Your task to perform on an android device: Open calendar and show me the fourth week of next month Image 0: 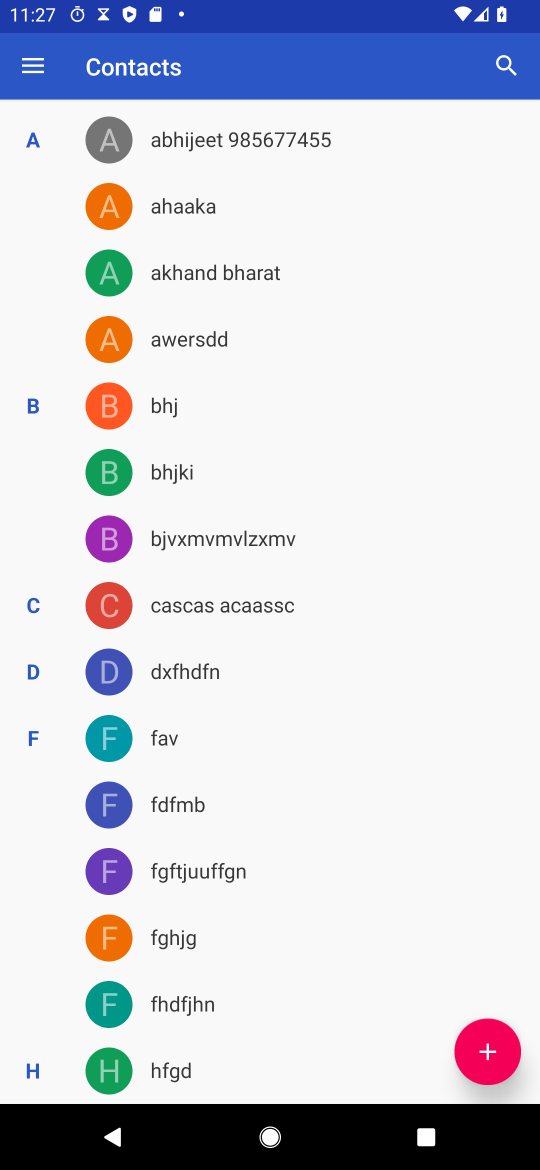
Step 0: press home button
Your task to perform on an android device: Open calendar and show me the fourth week of next month Image 1: 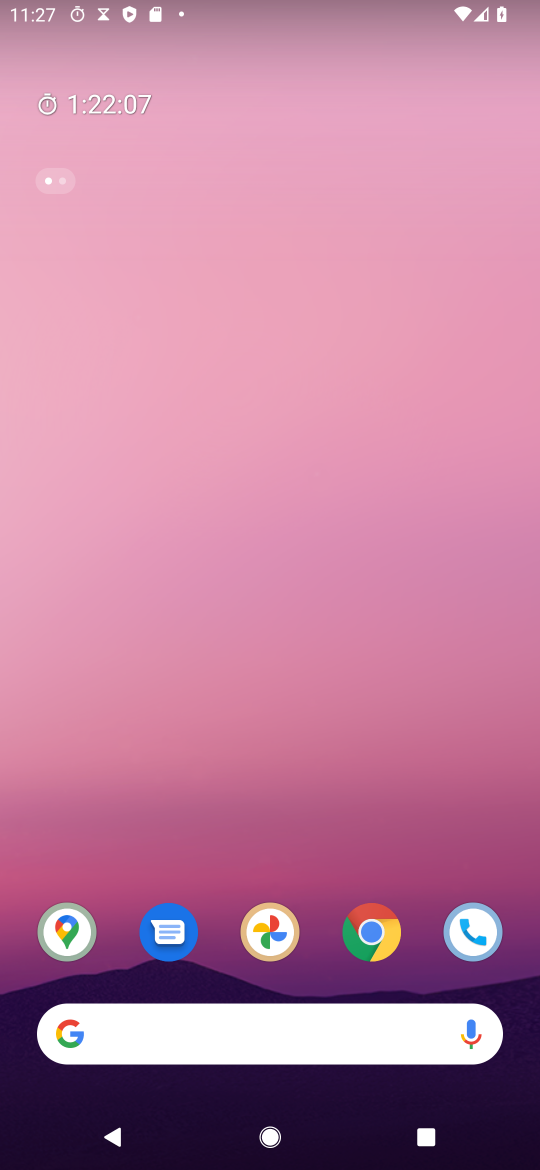
Step 1: drag from (327, 846) to (288, 79)
Your task to perform on an android device: Open calendar and show me the fourth week of next month Image 2: 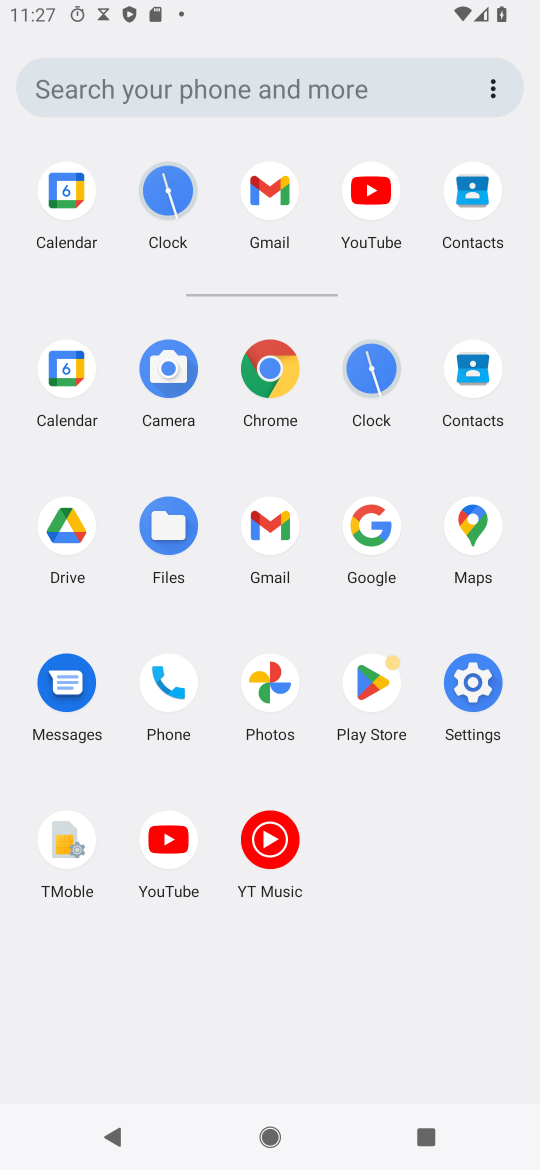
Step 2: click (77, 367)
Your task to perform on an android device: Open calendar and show me the fourth week of next month Image 3: 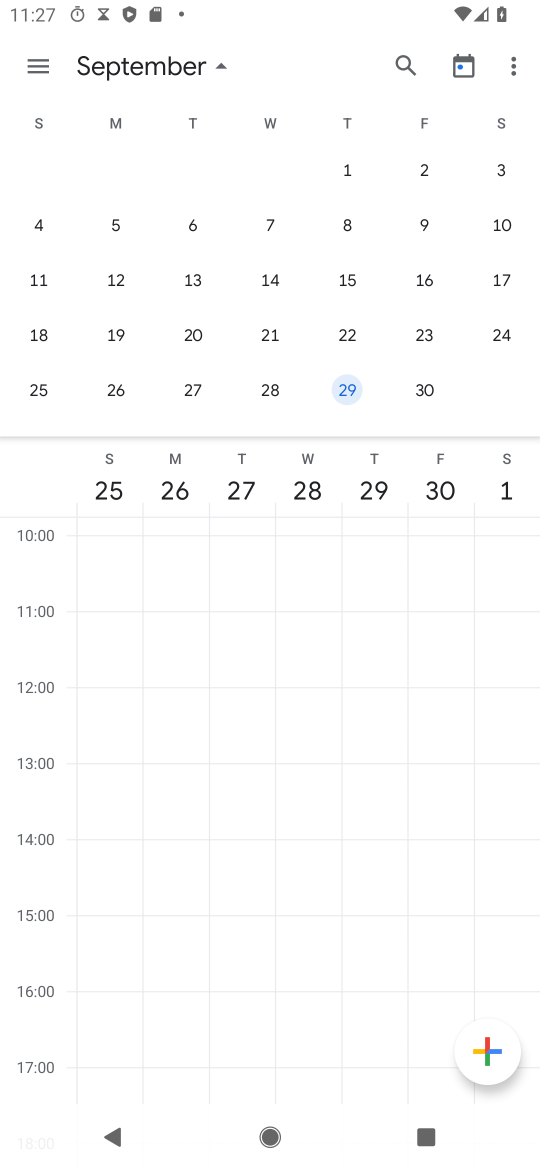
Step 3: click (271, 400)
Your task to perform on an android device: Open calendar and show me the fourth week of next month Image 4: 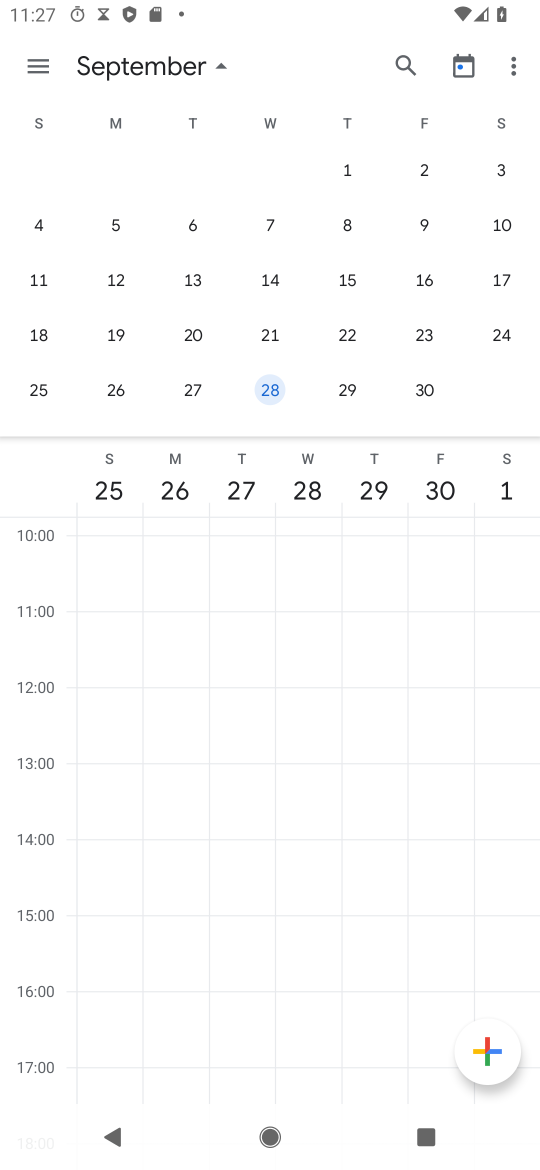
Step 4: task complete